Your task to perform on an android device: set the stopwatch Image 0: 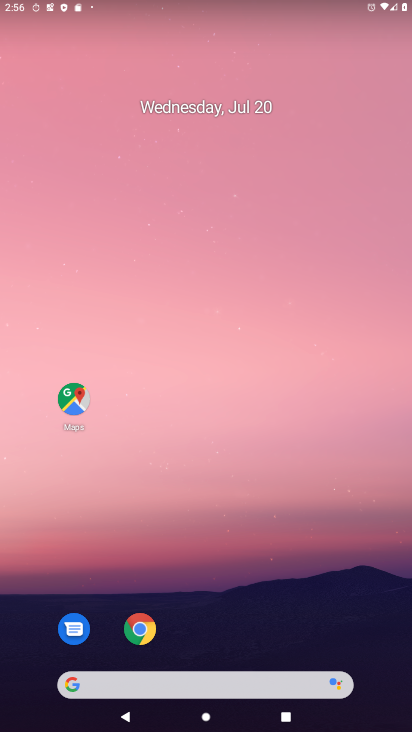
Step 0: drag from (224, 622) to (296, 0)
Your task to perform on an android device: set the stopwatch Image 1: 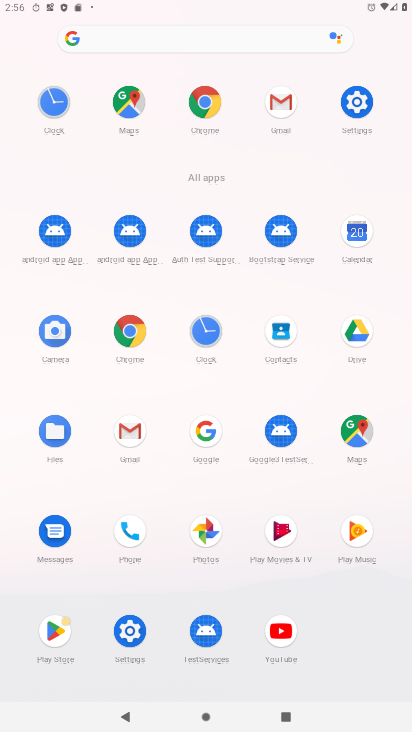
Step 1: click (197, 327)
Your task to perform on an android device: set the stopwatch Image 2: 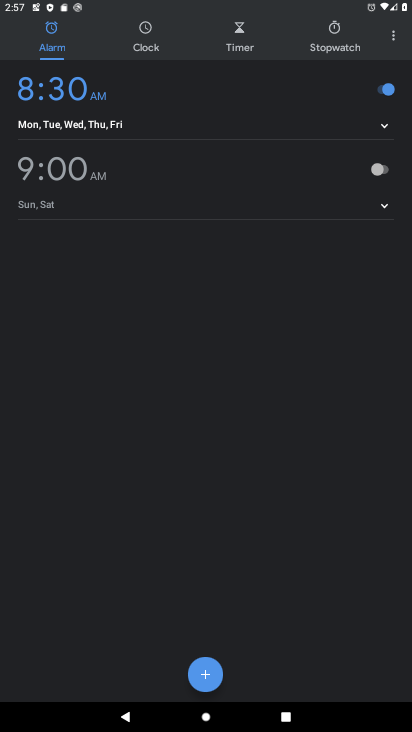
Step 2: click (336, 30)
Your task to perform on an android device: set the stopwatch Image 3: 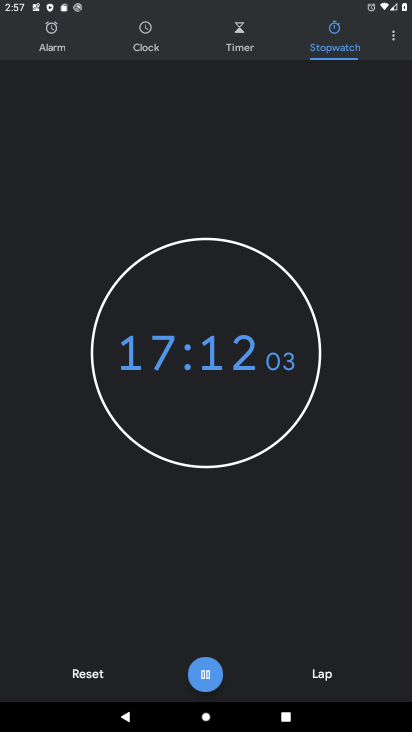
Step 3: task complete